Your task to perform on an android device: Go to sound settings Image 0: 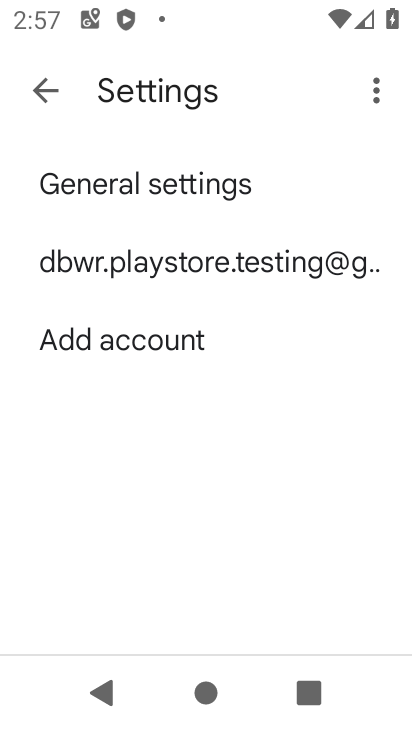
Step 0: press home button
Your task to perform on an android device: Go to sound settings Image 1: 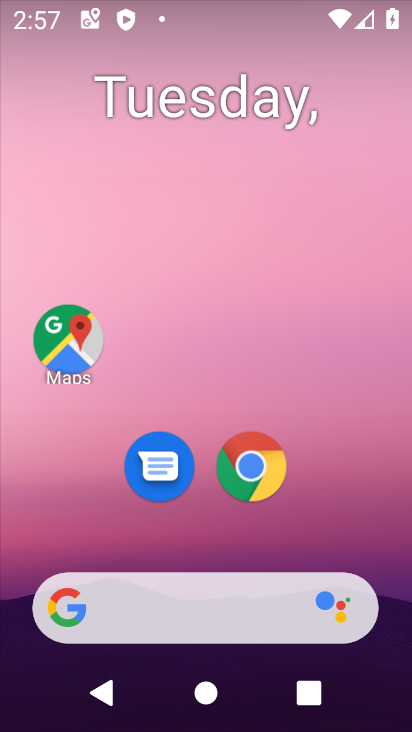
Step 1: drag from (344, 538) to (272, 108)
Your task to perform on an android device: Go to sound settings Image 2: 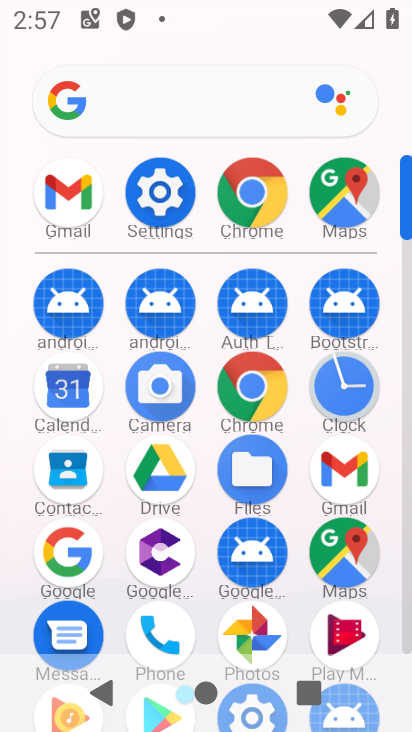
Step 2: click (158, 200)
Your task to perform on an android device: Go to sound settings Image 3: 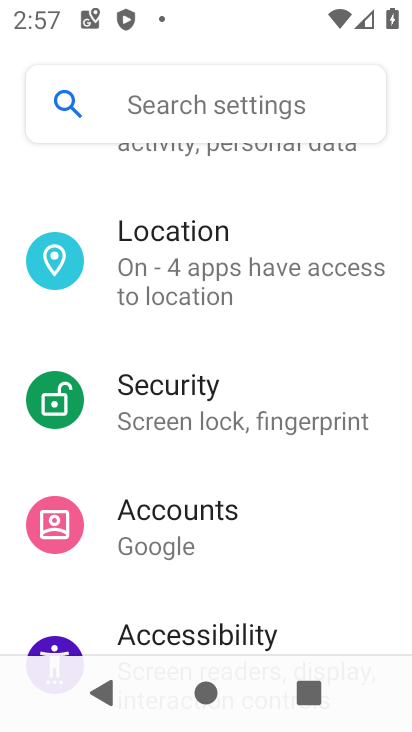
Step 3: drag from (207, 485) to (193, 303)
Your task to perform on an android device: Go to sound settings Image 4: 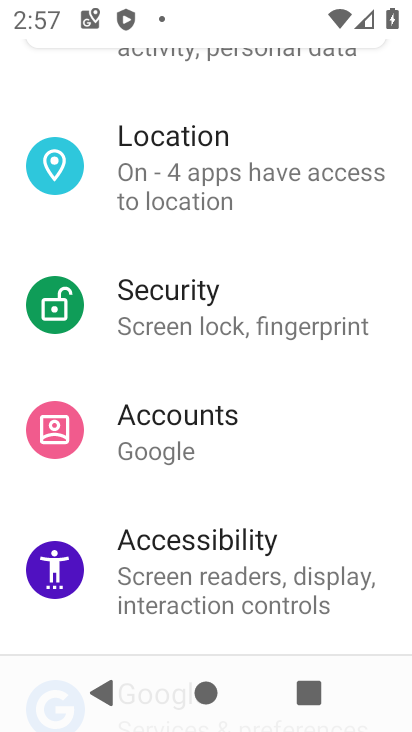
Step 4: drag from (258, 208) to (383, 490)
Your task to perform on an android device: Go to sound settings Image 5: 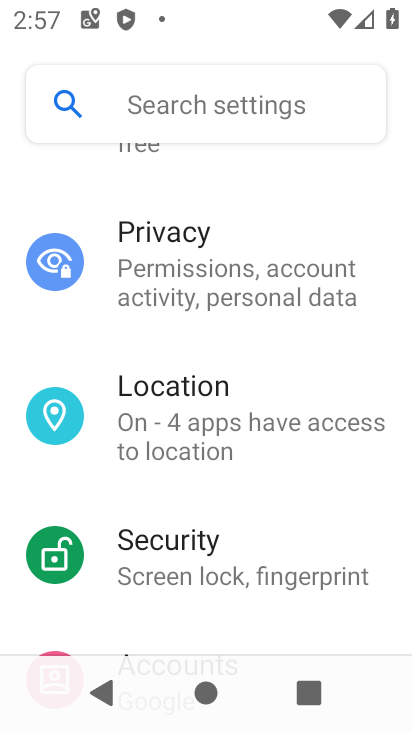
Step 5: drag from (285, 251) to (260, 707)
Your task to perform on an android device: Go to sound settings Image 6: 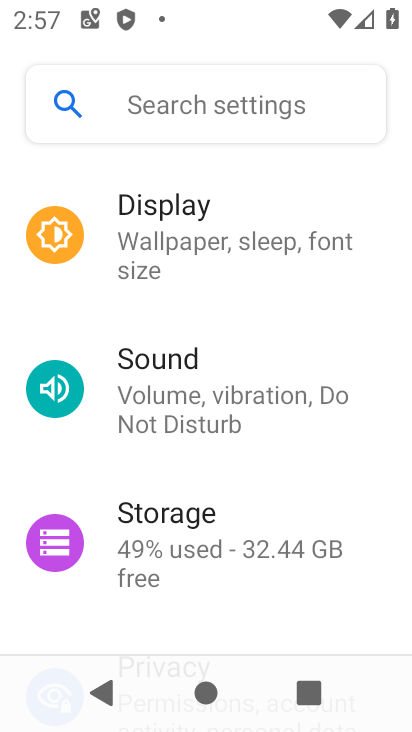
Step 6: click (205, 387)
Your task to perform on an android device: Go to sound settings Image 7: 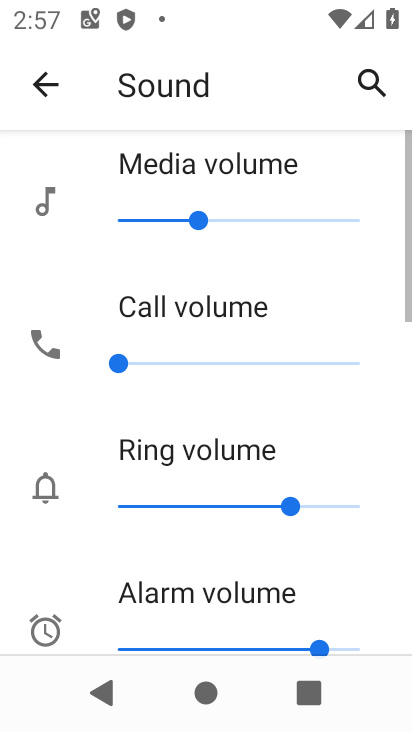
Step 7: task complete